Your task to perform on an android device: Open Yahoo.com Image 0: 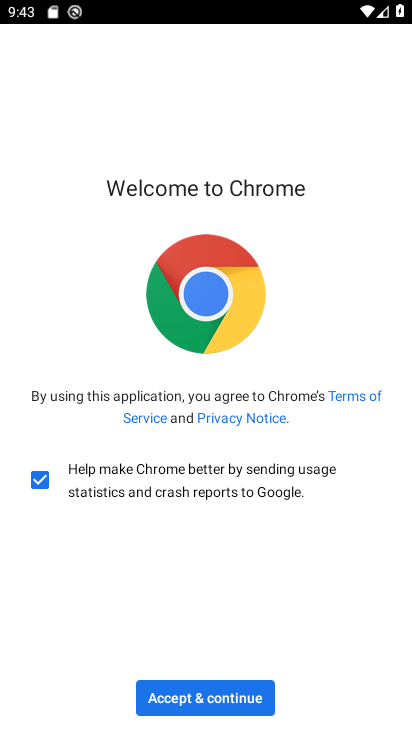
Step 0: click (208, 691)
Your task to perform on an android device: Open Yahoo.com Image 1: 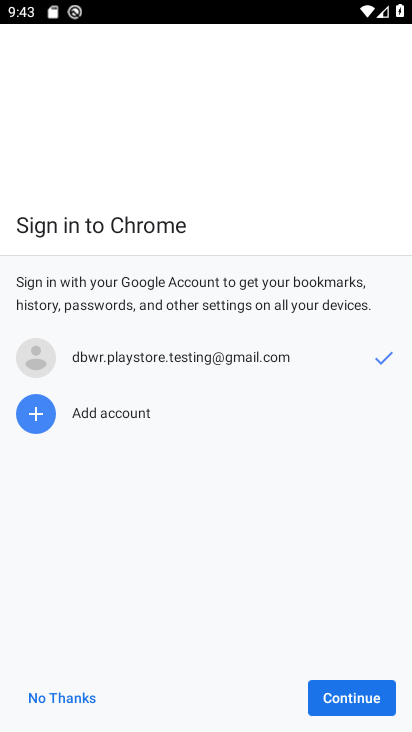
Step 1: click (370, 703)
Your task to perform on an android device: Open Yahoo.com Image 2: 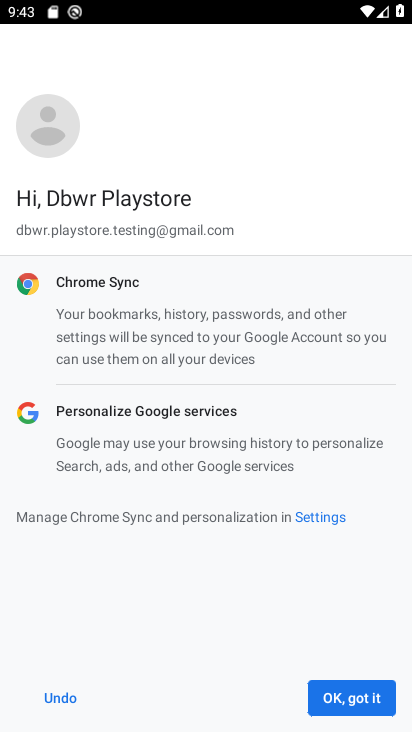
Step 2: click (356, 698)
Your task to perform on an android device: Open Yahoo.com Image 3: 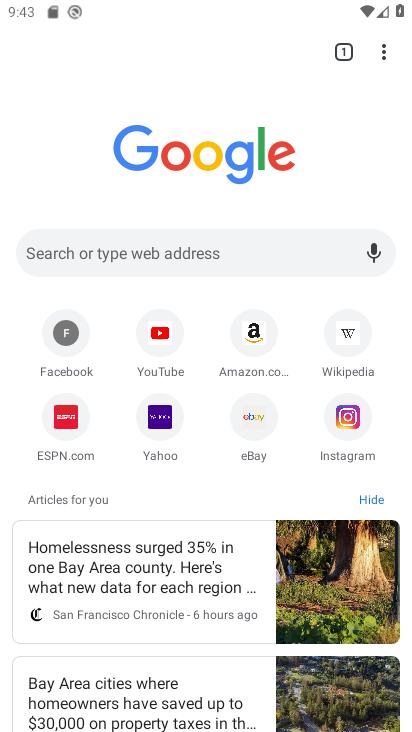
Step 3: click (162, 410)
Your task to perform on an android device: Open Yahoo.com Image 4: 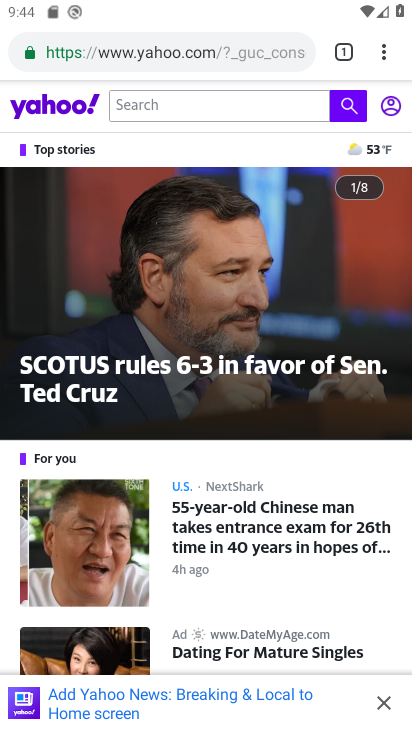
Step 4: task complete